Your task to perform on an android device: Open battery settings Image 0: 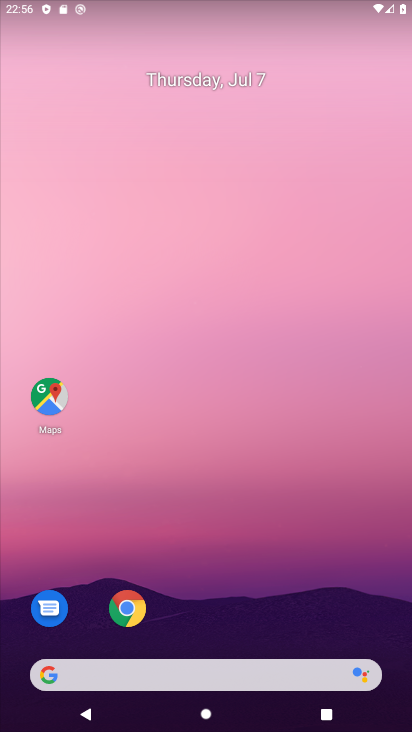
Step 0: drag from (228, 647) to (216, 153)
Your task to perform on an android device: Open battery settings Image 1: 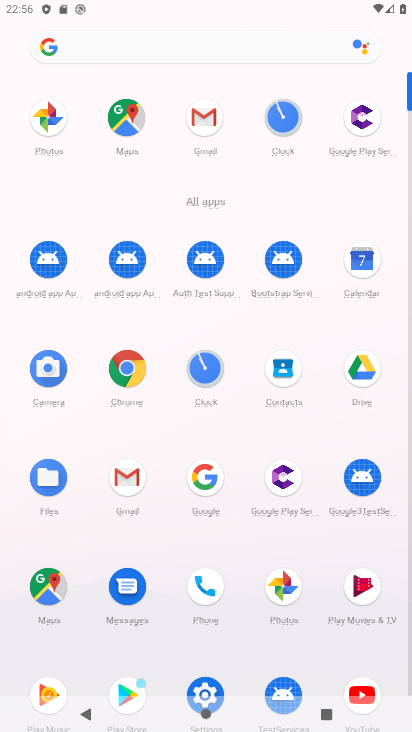
Step 1: click (205, 687)
Your task to perform on an android device: Open battery settings Image 2: 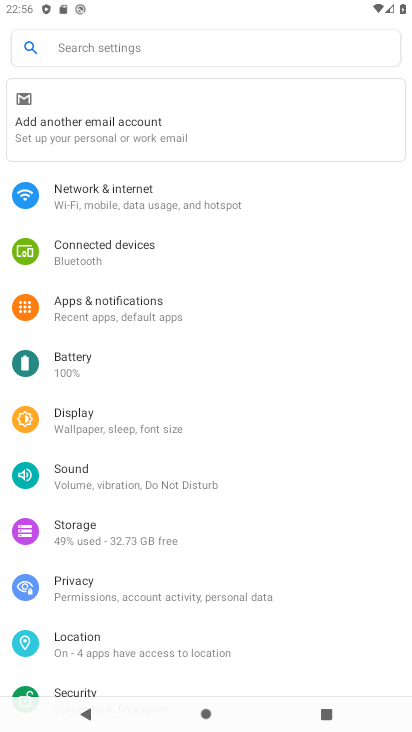
Step 2: click (97, 367)
Your task to perform on an android device: Open battery settings Image 3: 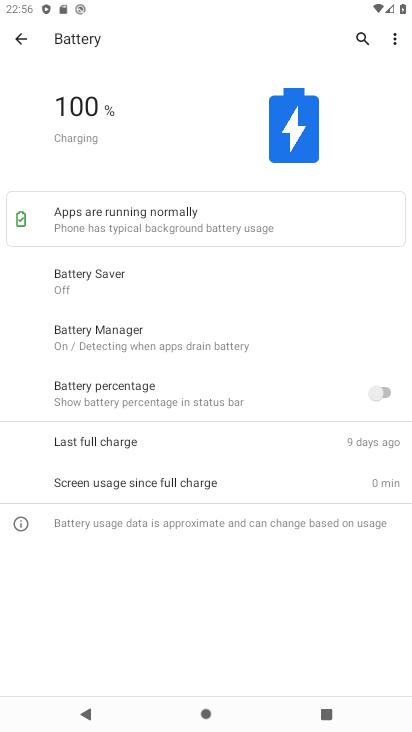
Step 3: task complete